Your task to perform on an android device: set default search engine in the chrome app Image 0: 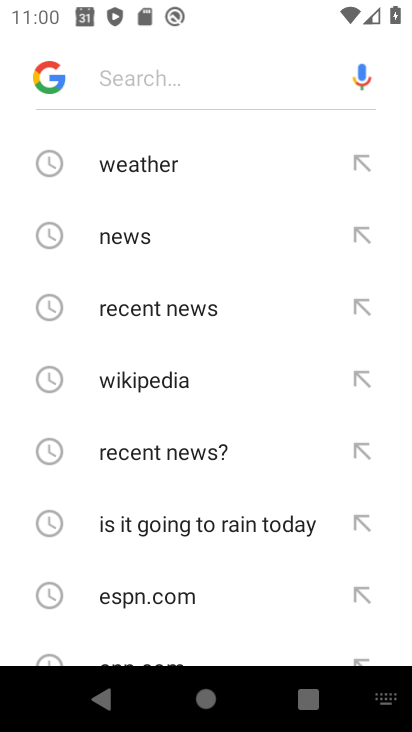
Step 0: press home button
Your task to perform on an android device: set default search engine in the chrome app Image 1: 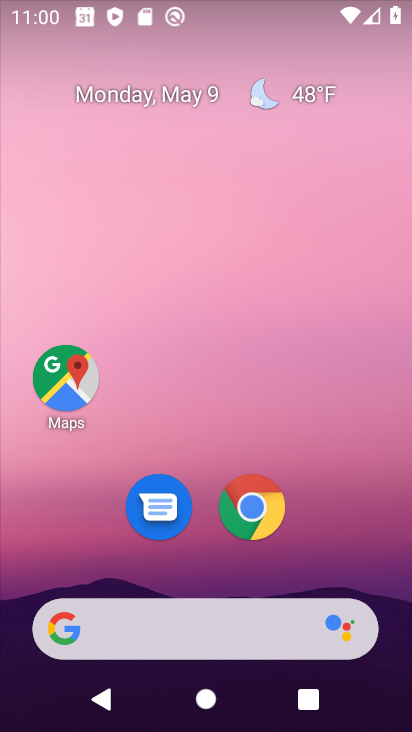
Step 1: click (270, 509)
Your task to perform on an android device: set default search engine in the chrome app Image 2: 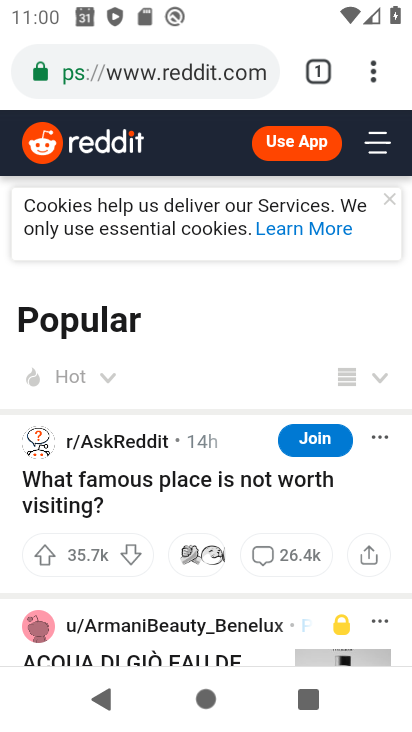
Step 2: click (369, 75)
Your task to perform on an android device: set default search engine in the chrome app Image 3: 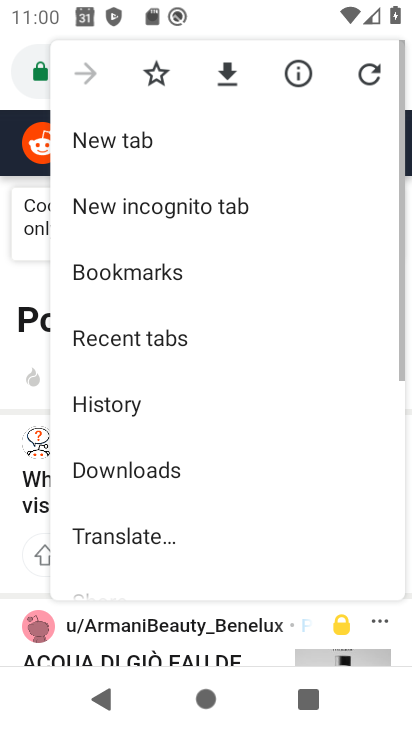
Step 3: drag from (203, 511) to (198, 238)
Your task to perform on an android device: set default search engine in the chrome app Image 4: 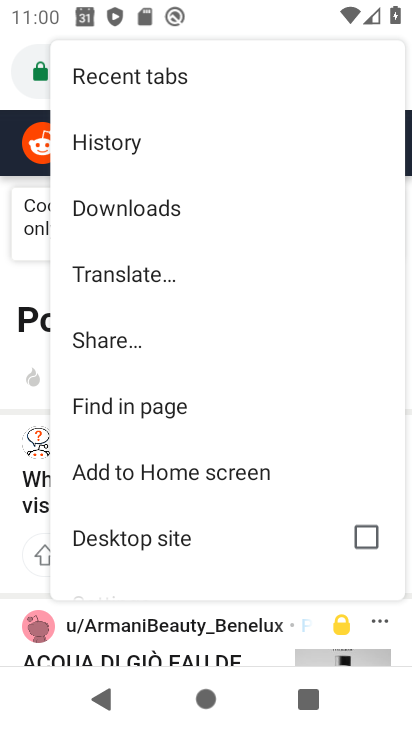
Step 4: drag from (190, 517) to (187, 225)
Your task to perform on an android device: set default search engine in the chrome app Image 5: 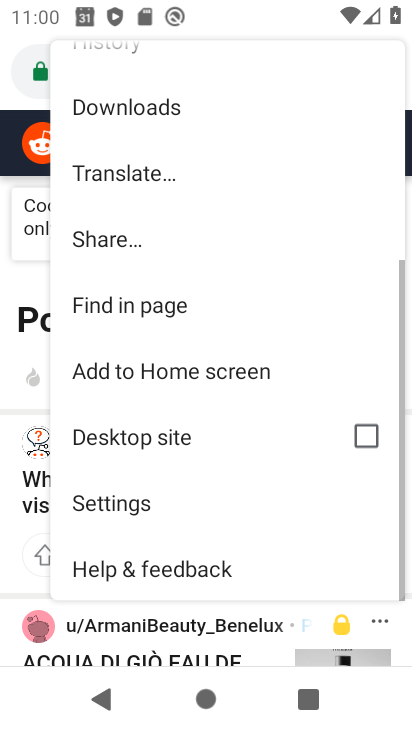
Step 5: click (178, 501)
Your task to perform on an android device: set default search engine in the chrome app Image 6: 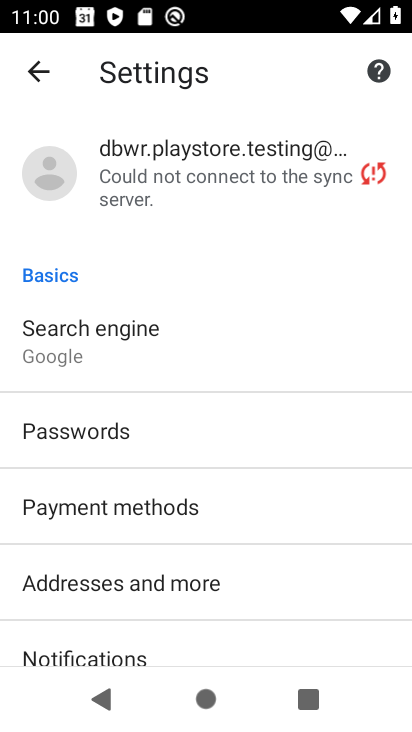
Step 6: click (112, 342)
Your task to perform on an android device: set default search engine in the chrome app Image 7: 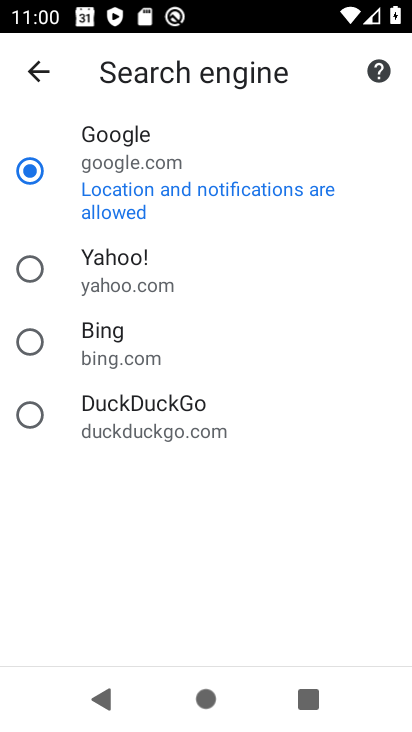
Step 7: task complete